Your task to perform on an android device: turn on wifi Image 0: 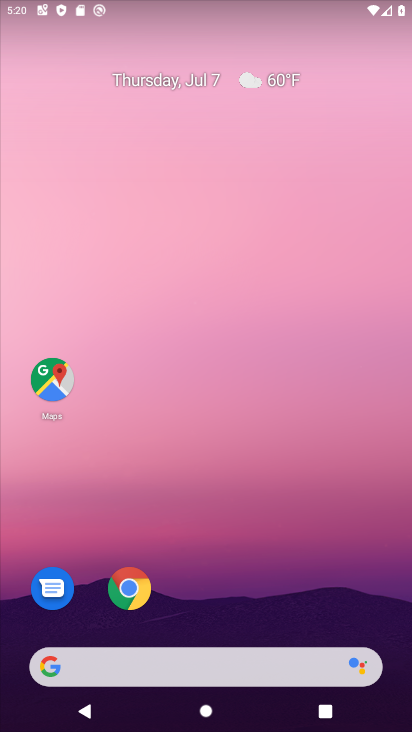
Step 0: drag from (74, 11) to (228, 702)
Your task to perform on an android device: turn on wifi Image 1: 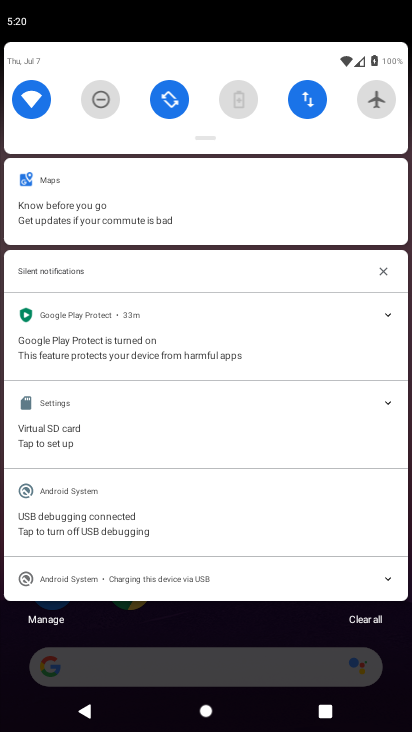
Step 1: task complete